Your task to perform on an android device: visit the assistant section in the google photos Image 0: 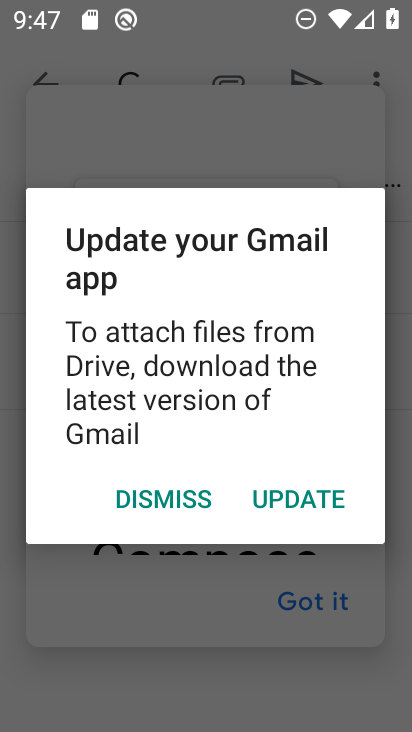
Step 0: click (178, 480)
Your task to perform on an android device: visit the assistant section in the google photos Image 1: 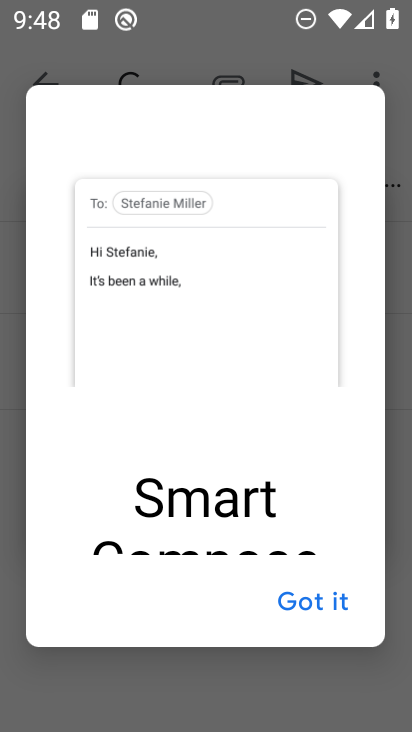
Step 1: press home button
Your task to perform on an android device: visit the assistant section in the google photos Image 2: 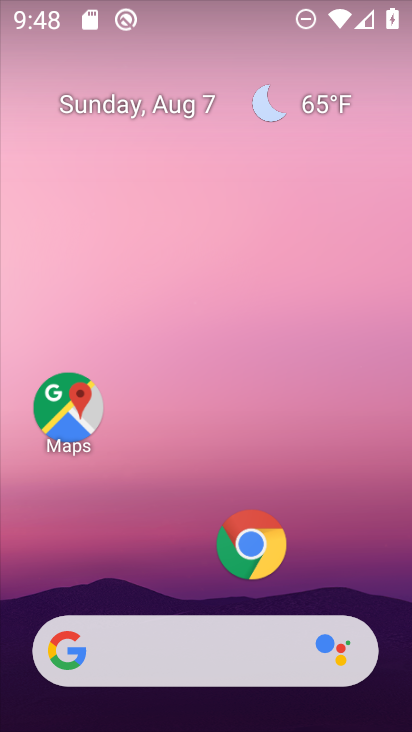
Step 2: drag from (267, 613) to (330, 662)
Your task to perform on an android device: visit the assistant section in the google photos Image 3: 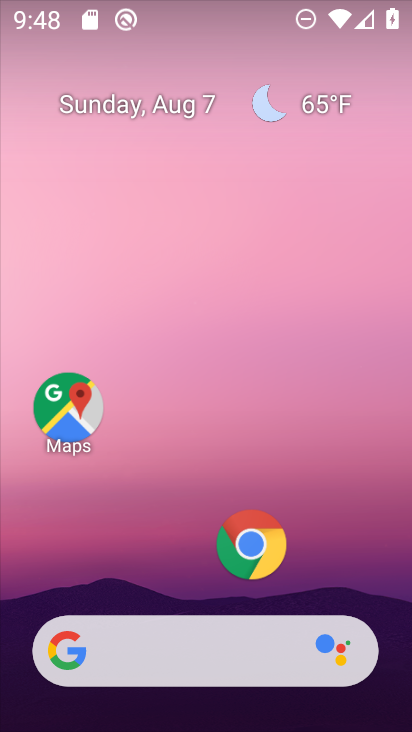
Step 3: drag from (222, 620) to (365, 50)
Your task to perform on an android device: visit the assistant section in the google photos Image 4: 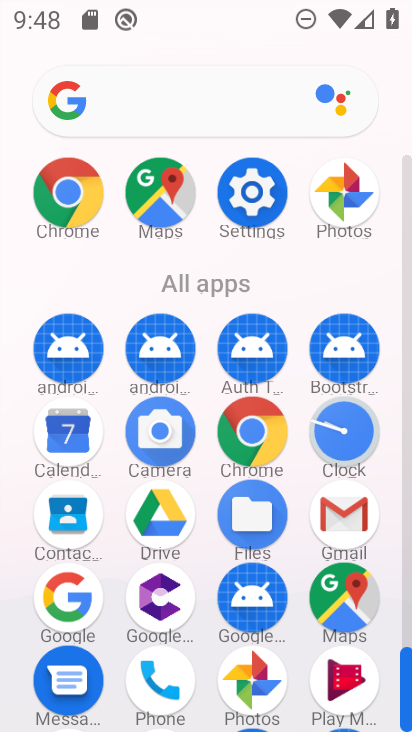
Step 4: click (262, 689)
Your task to perform on an android device: visit the assistant section in the google photos Image 5: 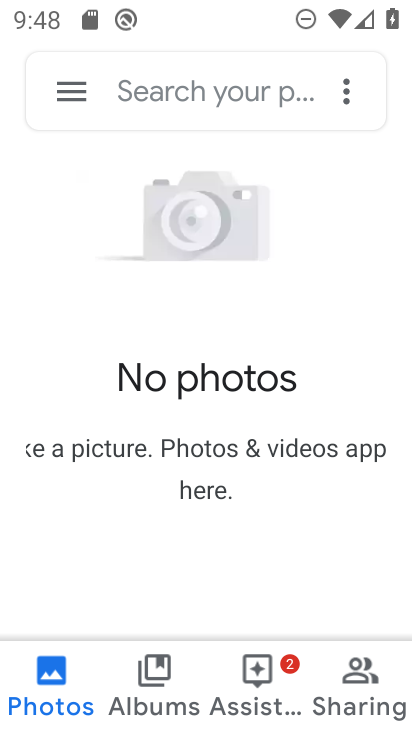
Step 5: click (260, 674)
Your task to perform on an android device: visit the assistant section in the google photos Image 6: 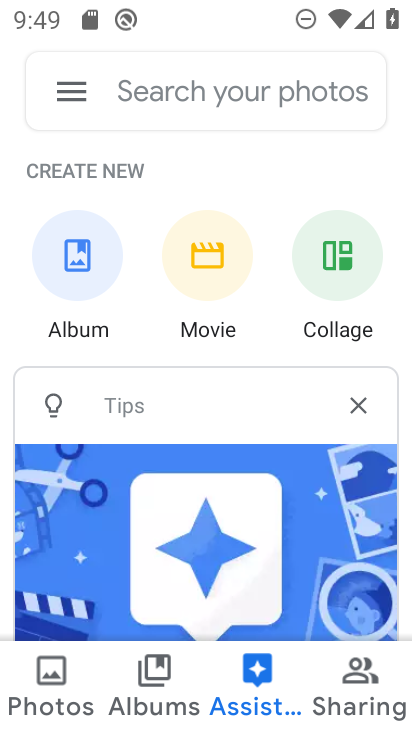
Step 6: task complete